Your task to perform on an android device: allow cookies in the chrome app Image 0: 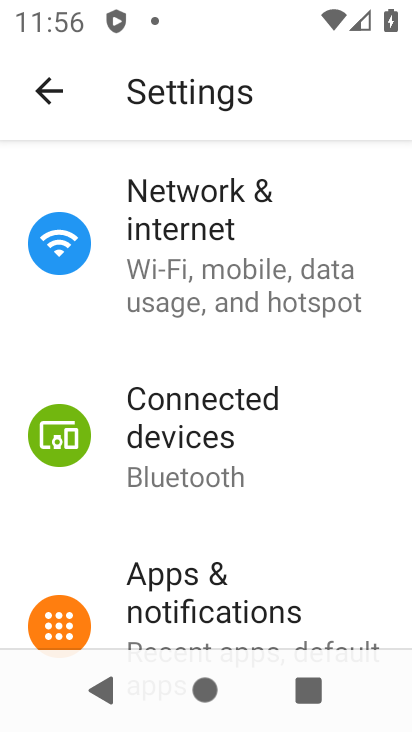
Step 0: press home button
Your task to perform on an android device: allow cookies in the chrome app Image 1: 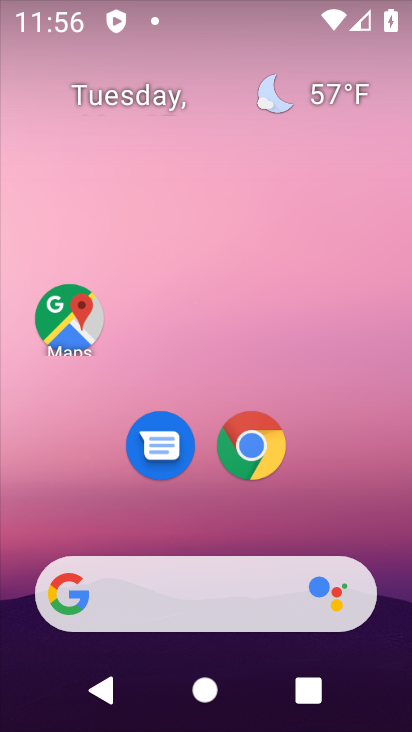
Step 1: drag from (358, 469) to (337, 148)
Your task to perform on an android device: allow cookies in the chrome app Image 2: 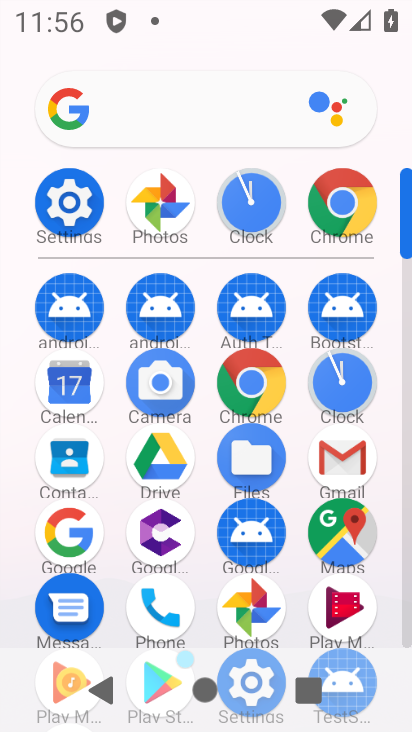
Step 2: click (345, 214)
Your task to perform on an android device: allow cookies in the chrome app Image 3: 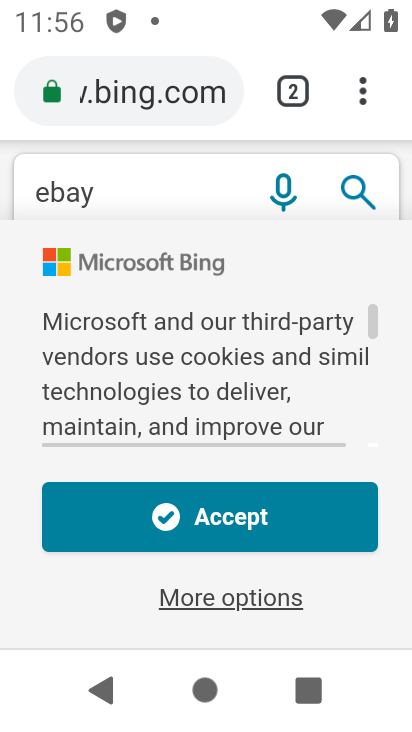
Step 3: click (366, 98)
Your task to perform on an android device: allow cookies in the chrome app Image 4: 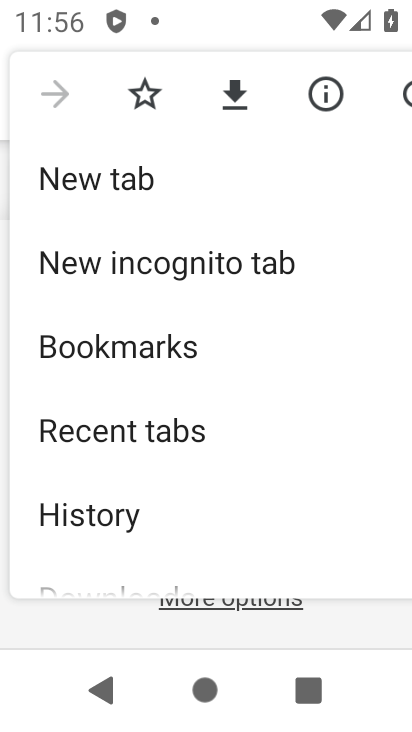
Step 4: drag from (296, 496) to (307, 345)
Your task to perform on an android device: allow cookies in the chrome app Image 5: 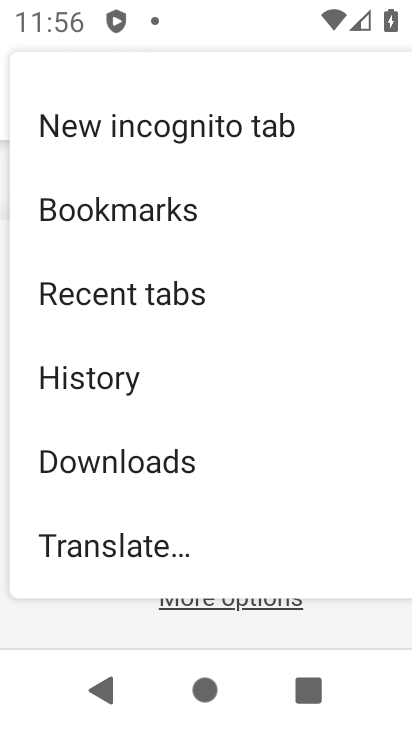
Step 5: drag from (290, 508) to (295, 352)
Your task to perform on an android device: allow cookies in the chrome app Image 6: 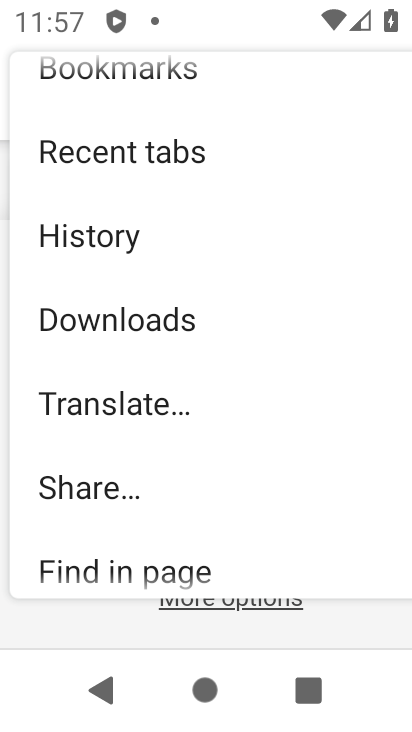
Step 6: drag from (268, 503) to (268, 332)
Your task to perform on an android device: allow cookies in the chrome app Image 7: 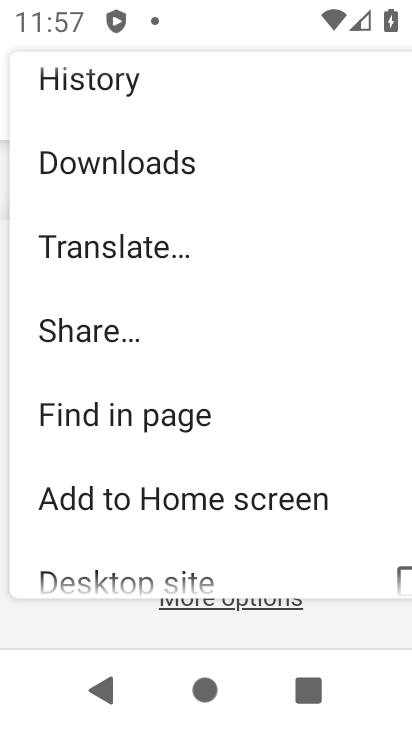
Step 7: drag from (266, 523) to (266, 344)
Your task to perform on an android device: allow cookies in the chrome app Image 8: 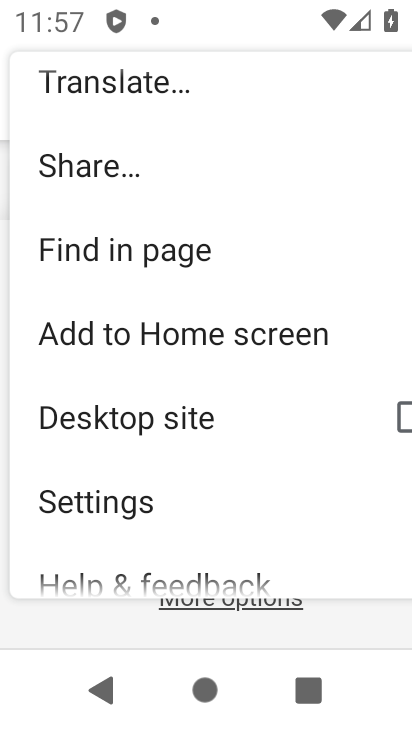
Step 8: click (127, 512)
Your task to perform on an android device: allow cookies in the chrome app Image 9: 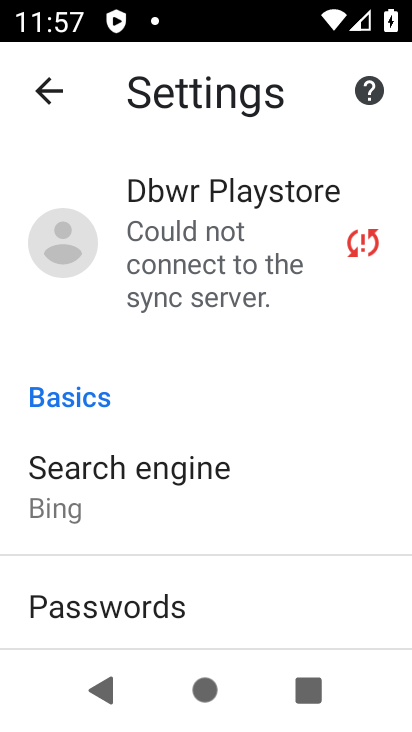
Step 9: drag from (310, 505) to (301, 335)
Your task to perform on an android device: allow cookies in the chrome app Image 10: 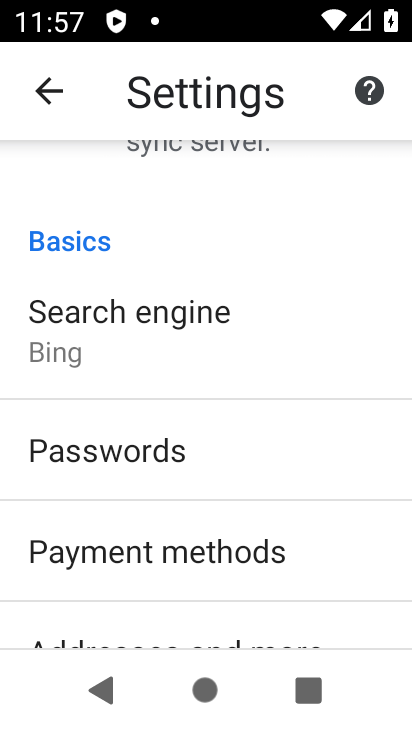
Step 10: drag from (288, 506) to (313, 303)
Your task to perform on an android device: allow cookies in the chrome app Image 11: 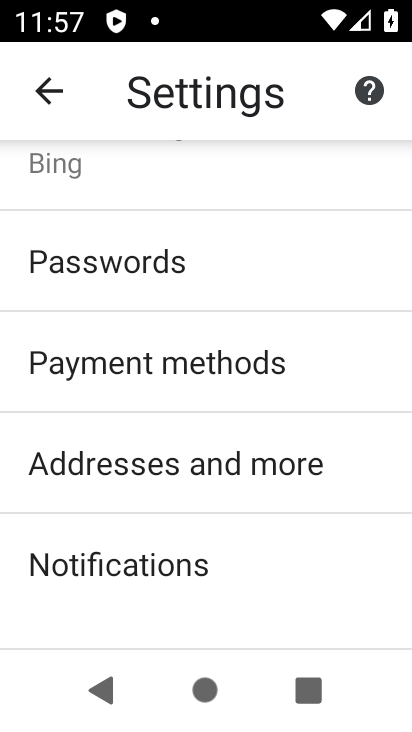
Step 11: drag from (302, 569) to (306, 317)
Your task to perform on an android device: allow cookies in the chrome app Image 12: 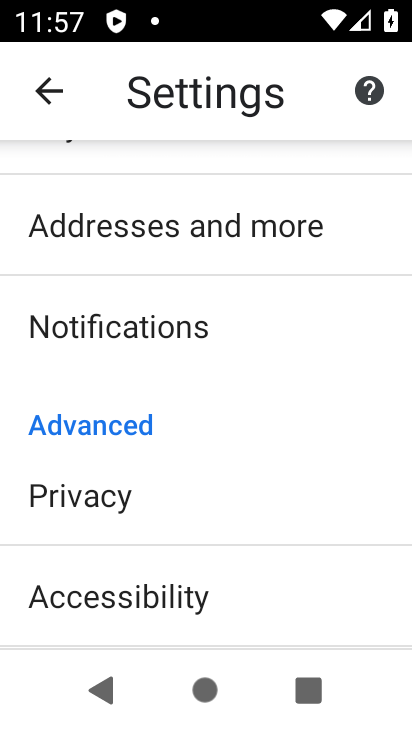
Step 12: drag from (279, 535) to (293, 370)
Your task to perform on an android device: allow cookies in the chrome app Image 13: 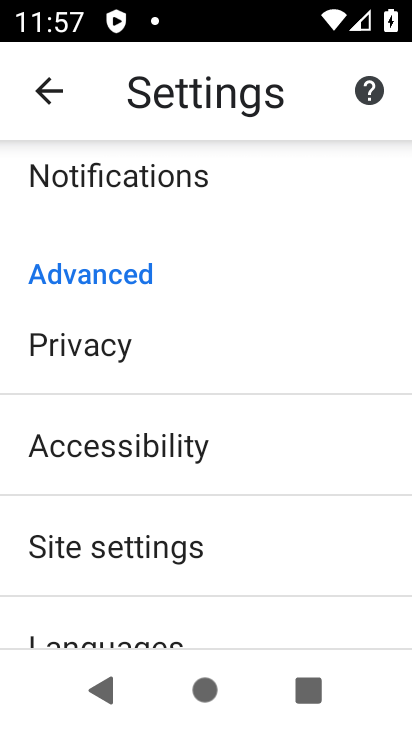
Step 13: drag from (292, 561) to (275, 362)
Your task to perform on an android device: allow cookies in the chrome app Image 14: 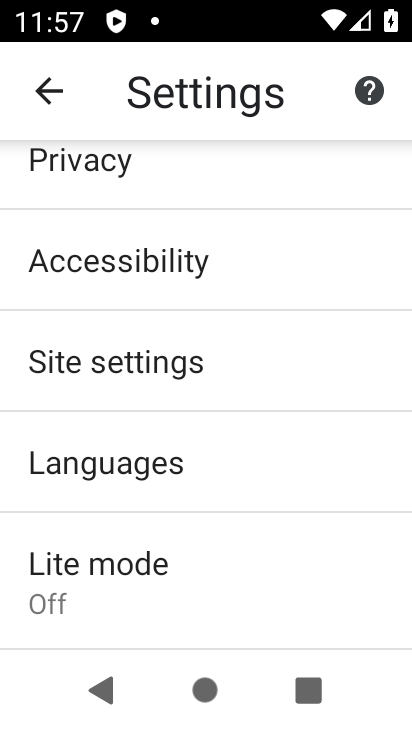
Step 14: click (207, 379)
Your task to perform on an android device: allow cookies in the chrome app Image 15: 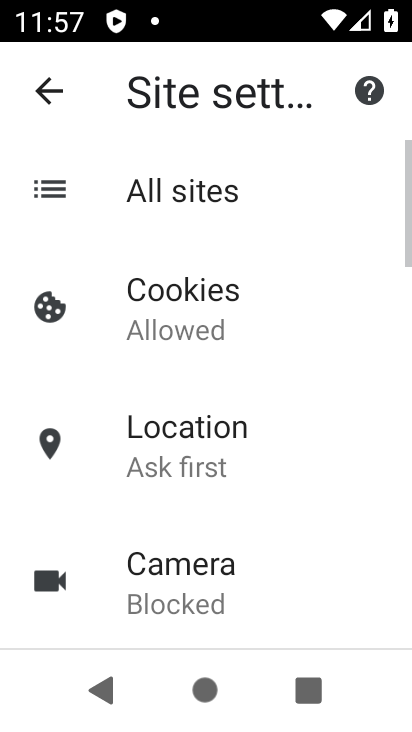
Step 15: drag from (304, 560) to (299, 462)
Your task to perform on an android device: allow cookies in the chrome app Image 16: 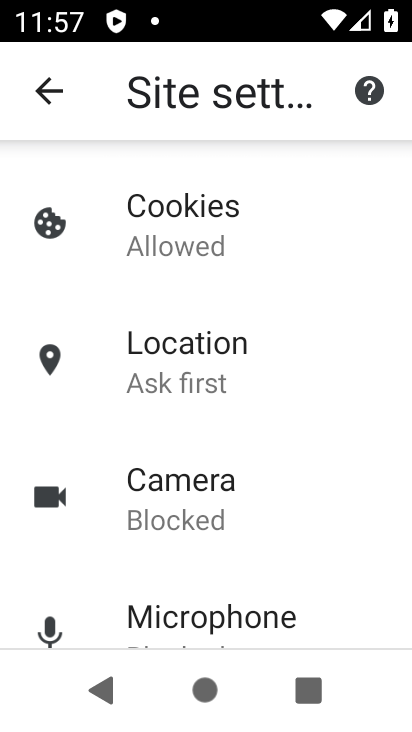
Step 16: drag from (315, 571) to (312, 437)
Your task to perform on an android device: allow cookies in the chrome app Image 17: 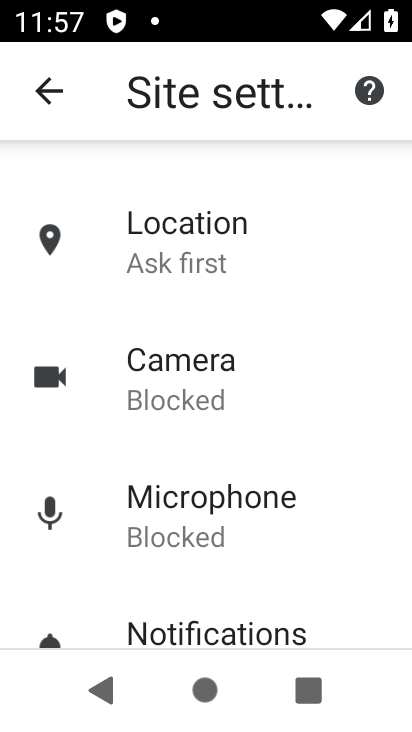
Step 17: drag from (326, 599) to (318, 442)
Your task to perform on an android device: allow cookies in the chrome app Image 18: 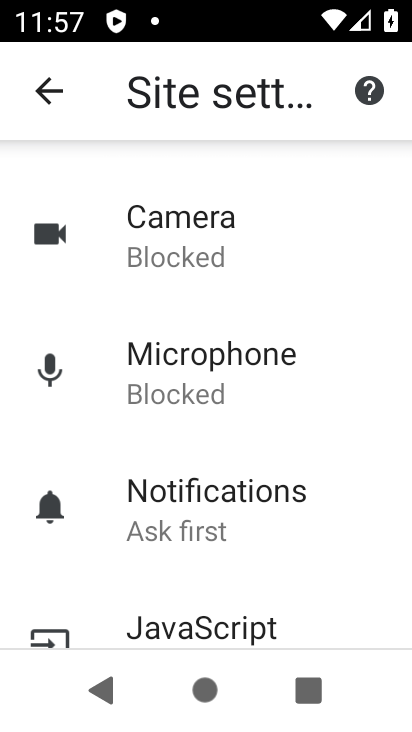
Step 18: drag from (320, 584) to (334, 486)
Your task to perform on an android device: allow cookies in the chrome app Image 19: 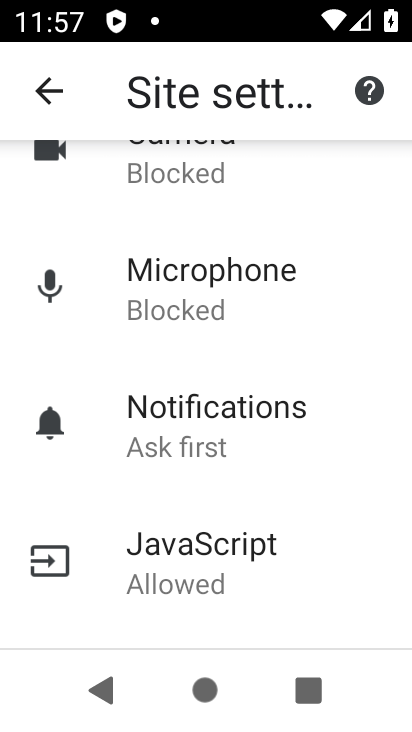
Step 19: drag from (332, 591) to (348, 483)
Your task to perform on an android device: allow cookies in the chrome app Image 20: 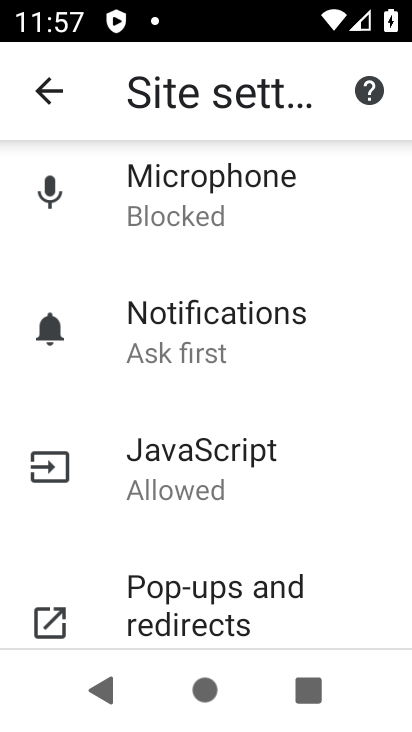
Step 20: drag from (362, 600) to (370, 494)
Your task to perform on an android device: allow cookies in the chrome app Image 21: 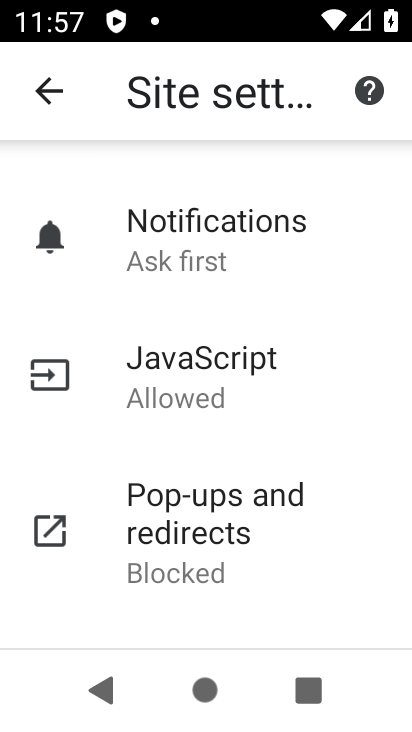
Step 21: drag from (351, 288) to (354, 420)
Your task to perform on an android device: allow cookies in the chrome app Image 22: 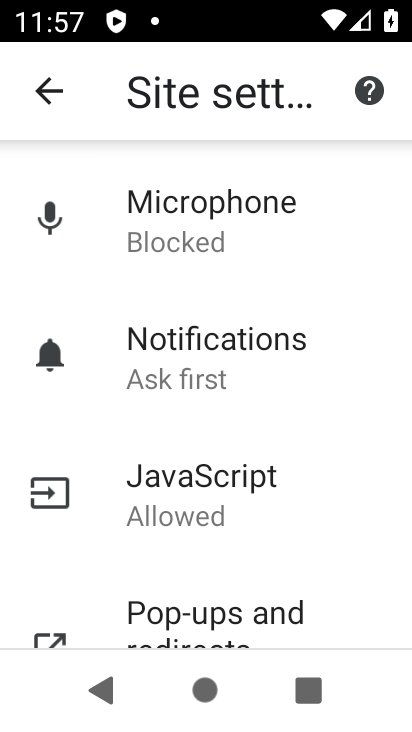
Step 22: drag from (349, 263) to (332, 365)
Your task to perform on an android device: allow cookies in the chrome app Image 23: 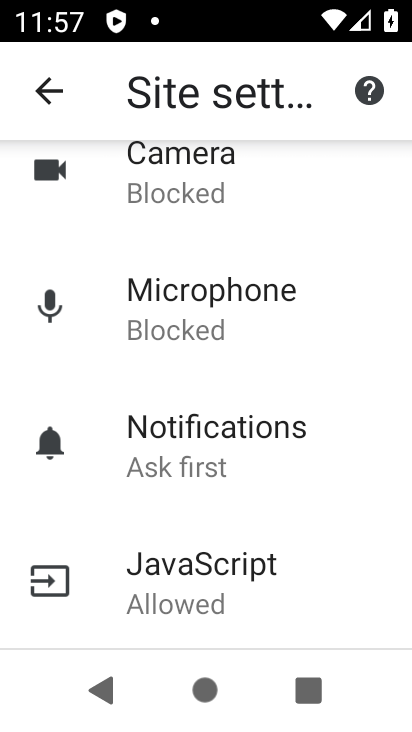
Step 23: drag from (331, 240) to (316, 370)
Your task to perform on an android device: allow cookies in the chrome app Image 24: 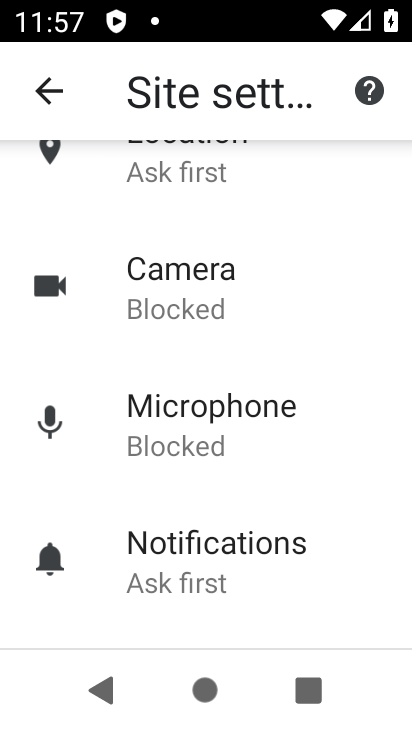
Step 24: drag from (329, 236) to (315, 362)
Your task to perform on an android device: allow cookies in the chrome app Image 25: 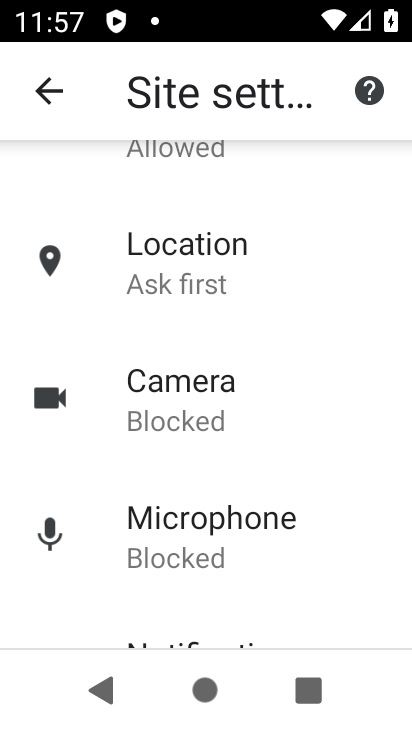
Step 25: drag from (318, 224) to (305, 325)
Your task to perform on an android device: allow cookies in the chrome app Image 26: 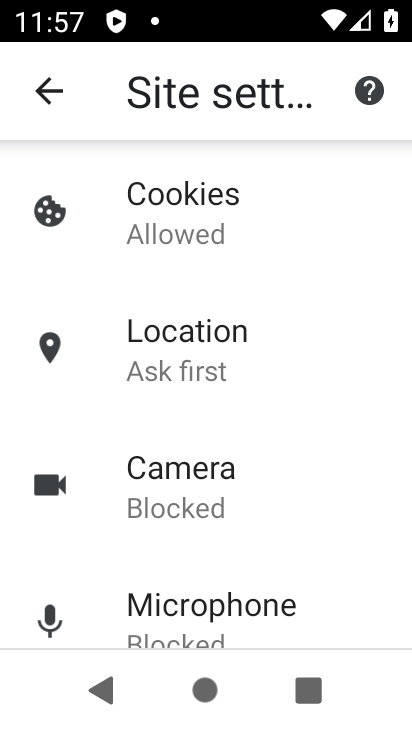
Step 26: click (200, 181)
Your task to perform on an android device: allow cookies in the chrome app Image 27: 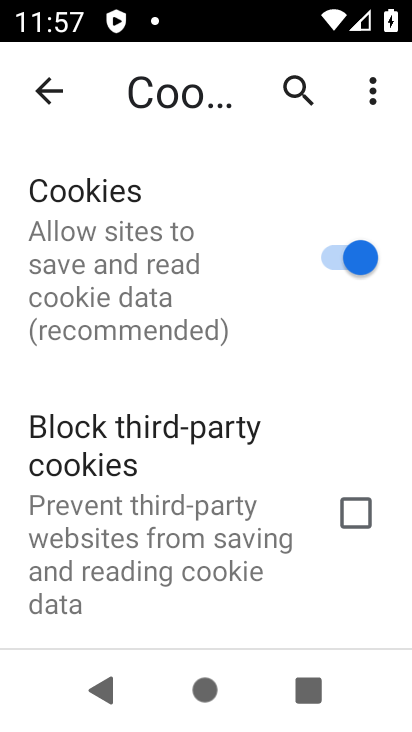
Step 27: task complete